Your task to perform on an android device: Open Amazon Image 0: 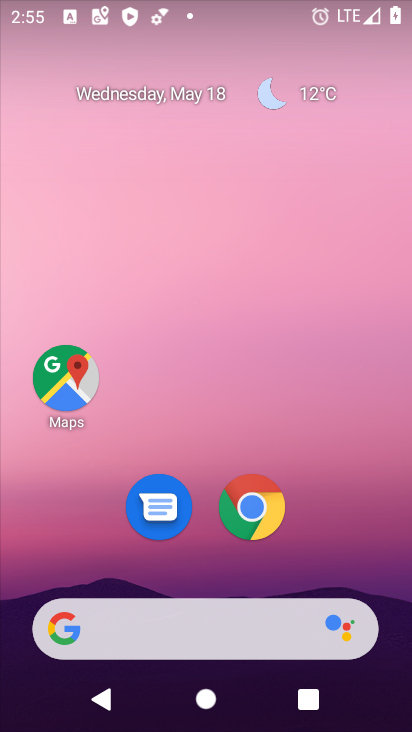
Step 0: click (254, 506)
Your task to perform on an android device: Open Amazon Image 1: 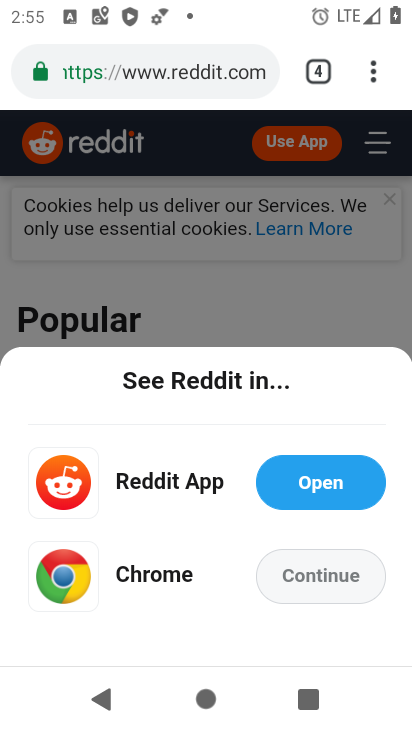
Step 1: click (175, 68)
Your task to perform on an android device: Open Amazon Image 2: 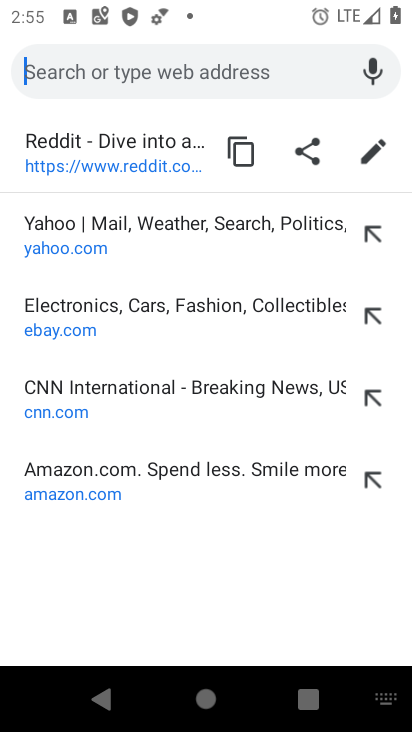
Step 2: type "amazon"
Your task to perform on an android device: Open Amazon Image 3: 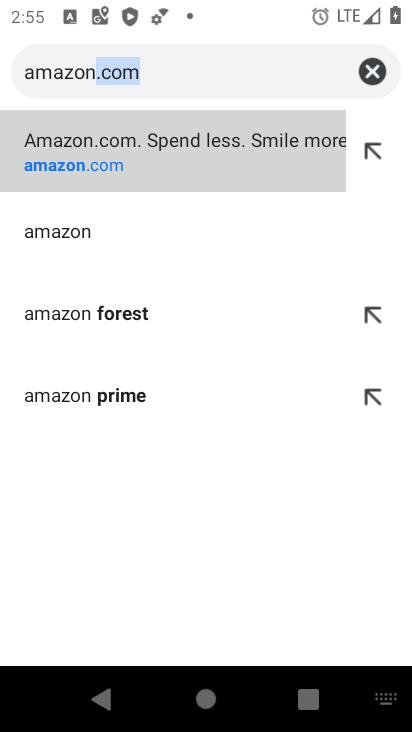
Step 3: click (69, 139)
Your task to perform on an android device: Open Amazon Image 4: 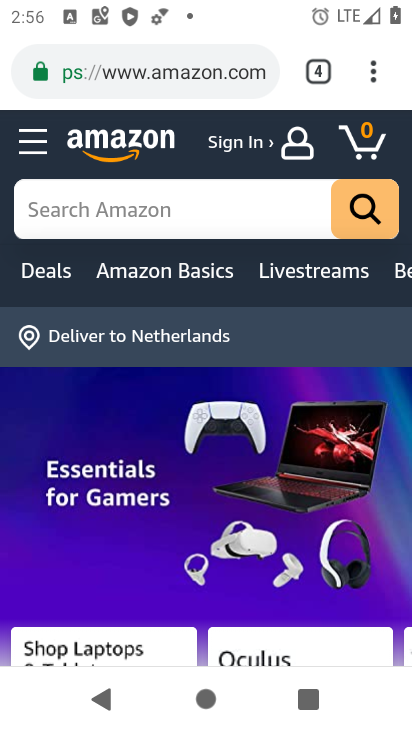
Step 4: task complete